Your task to perform on an android device: Search for usb-c to usb-a on ebay, select the first entry, add it to the cart, then select checkout. Image 0: 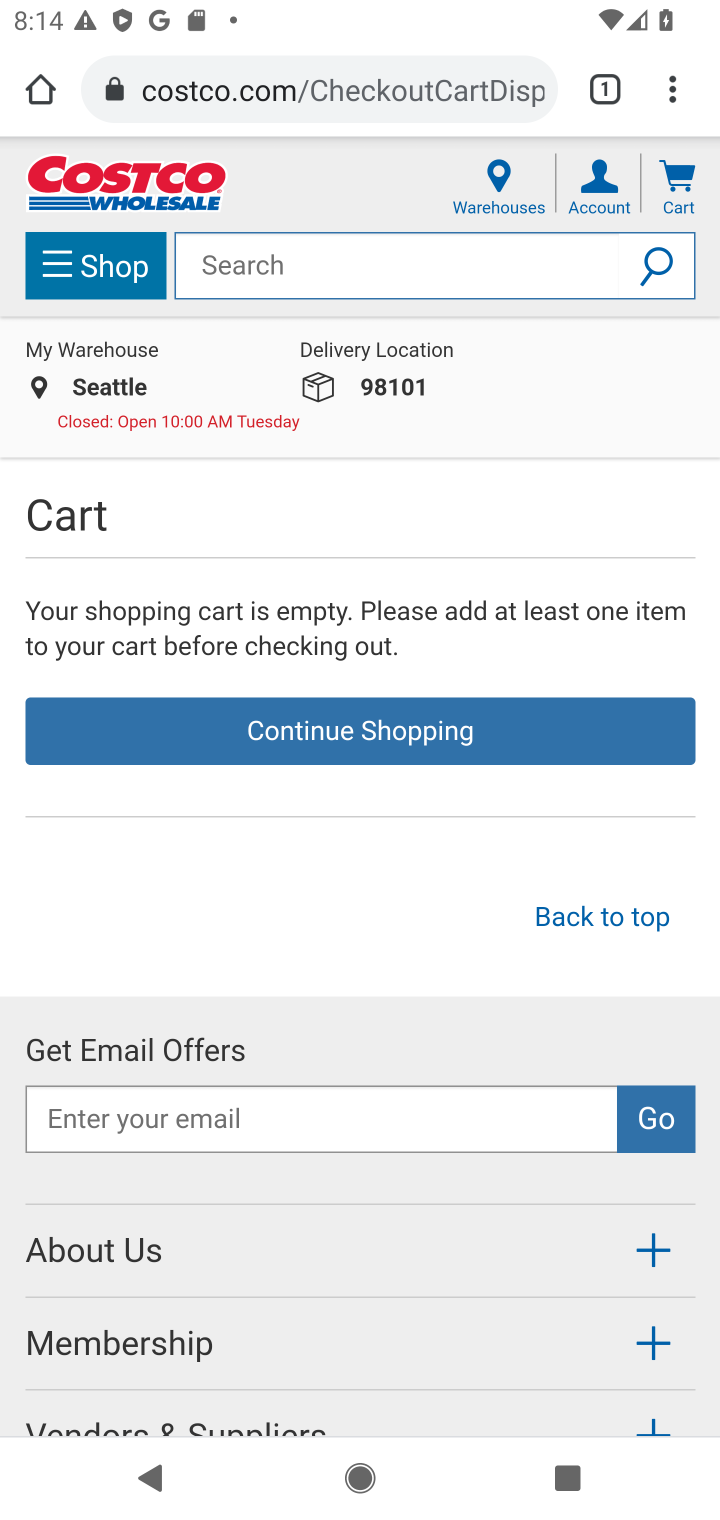
Step 0: press home button
Your task to perform on an android device: Search for usb-c to usb-a on ebay, select the first entry, add it to the cart, then select checkout. Image 1: 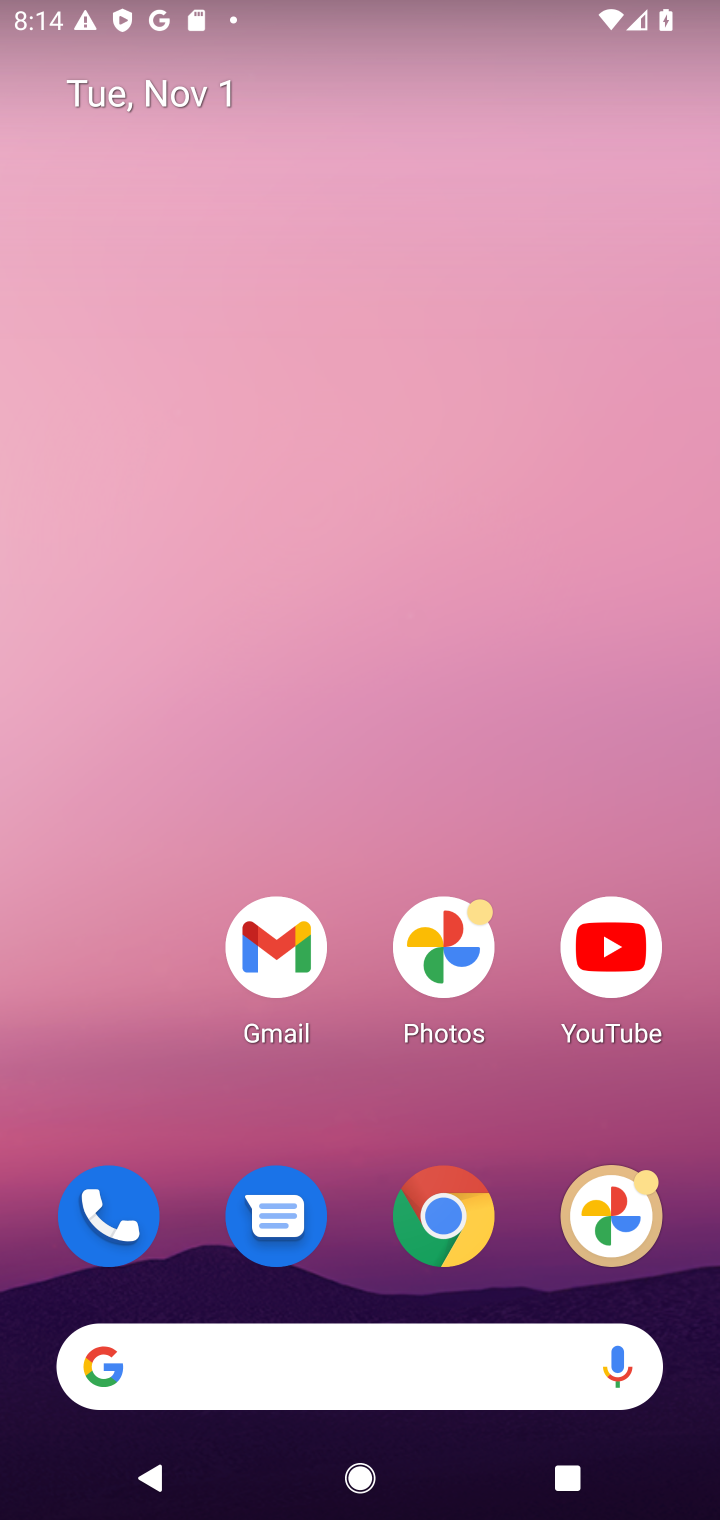
Step 1: click (424, 1212)
Your task to perform on an android device: Search for usb-c to usb-a on ebay, select the first entry, add it to the cart, then select checkout. Image 2: 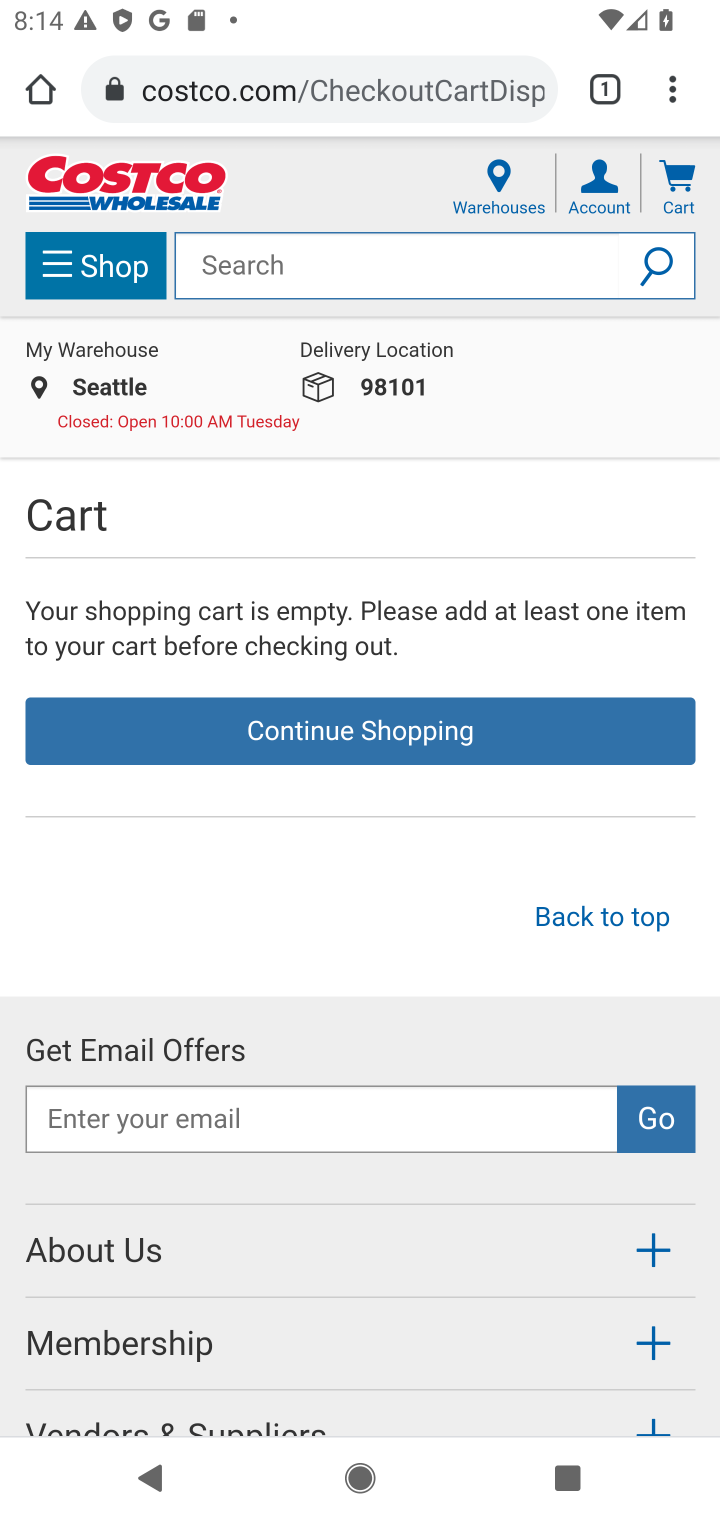
Step 2: click (228, 98)
Your task to perform on an android device: Search for usb-c to usb-a on ebay, select the first entry, add it to the cart, then select checkout. Image 3: 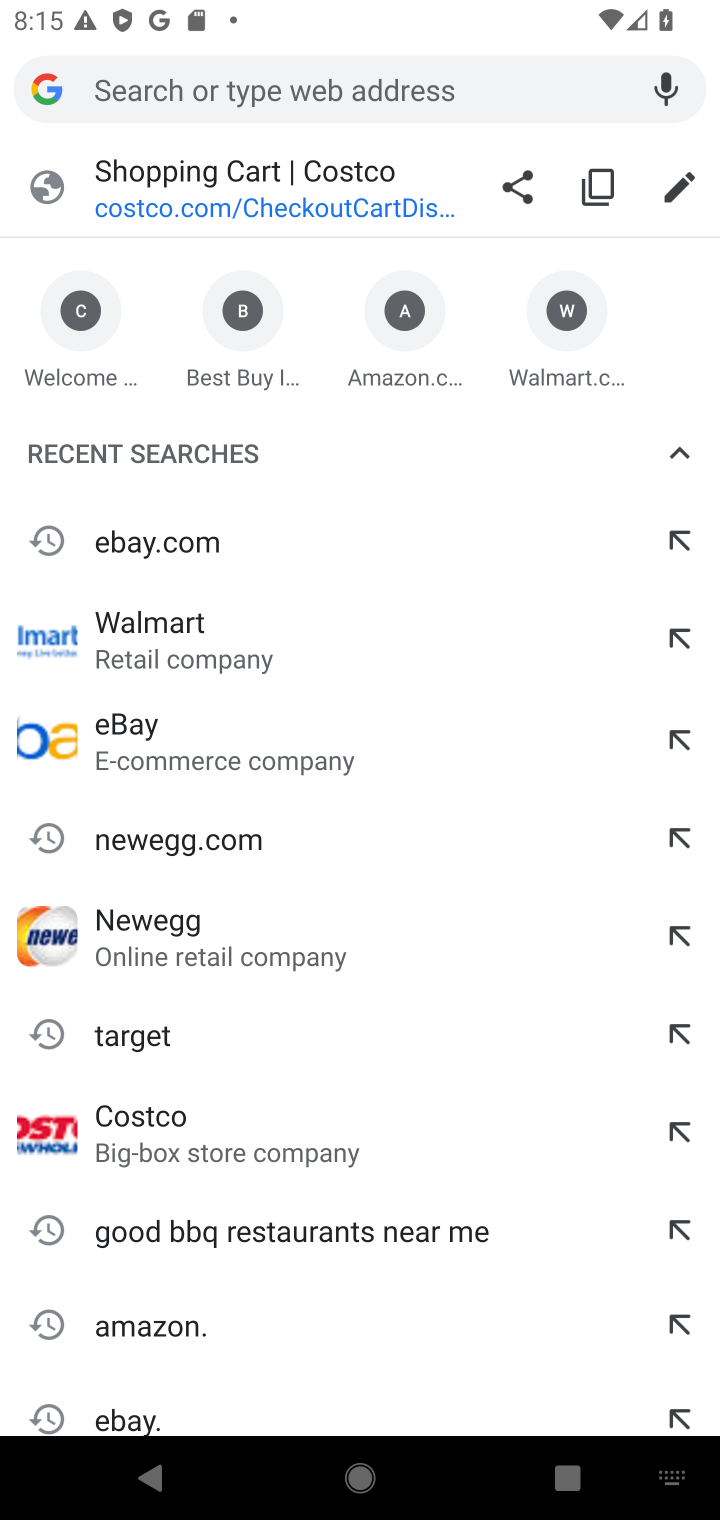
Step 3: type "ebay"
Your task to perform on an android device: Search for usb-c to usb-a on ebay, select the first entry, add it to the cart, then select checkout. Image 4: 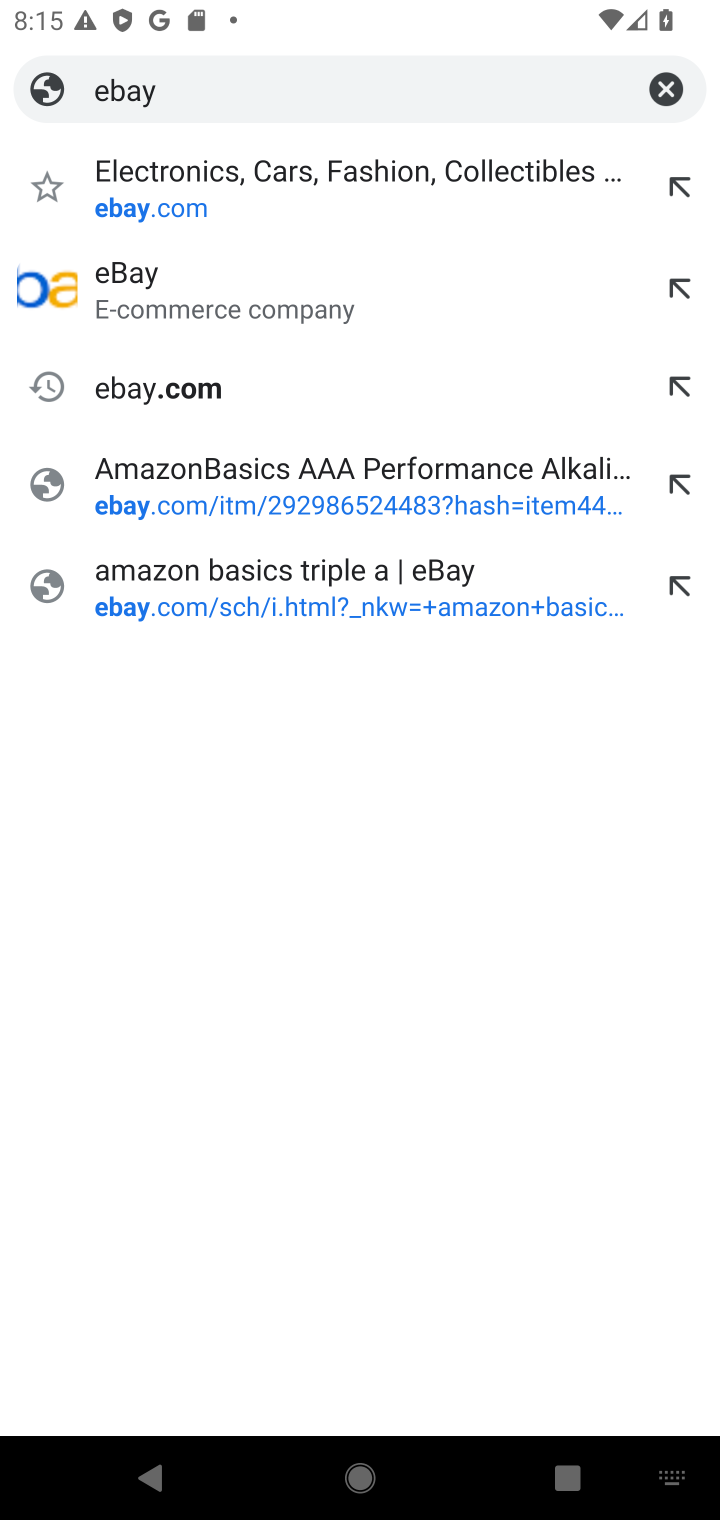
Step 4: click (226, 288)
Your task to perform on an android device: Search for usb-c to usb-a on ebay, select the first entry, add it to the cart, then select checkout. Image 5: 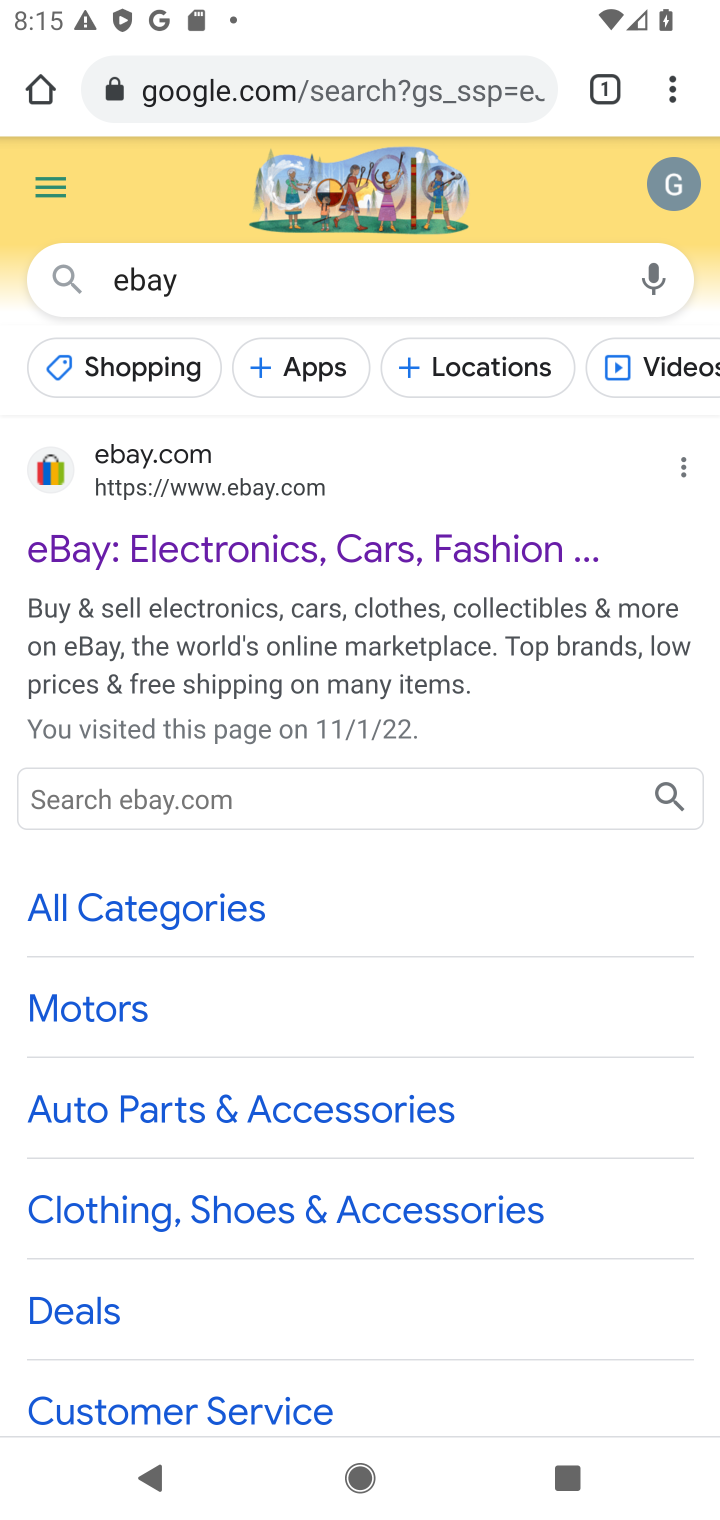
Step 5: click (176, 560)
Your task to perform on an android device: Search for usb-c to usb-a on ebay, select the first entry, add it to the cart, then select checkout. Image 6: 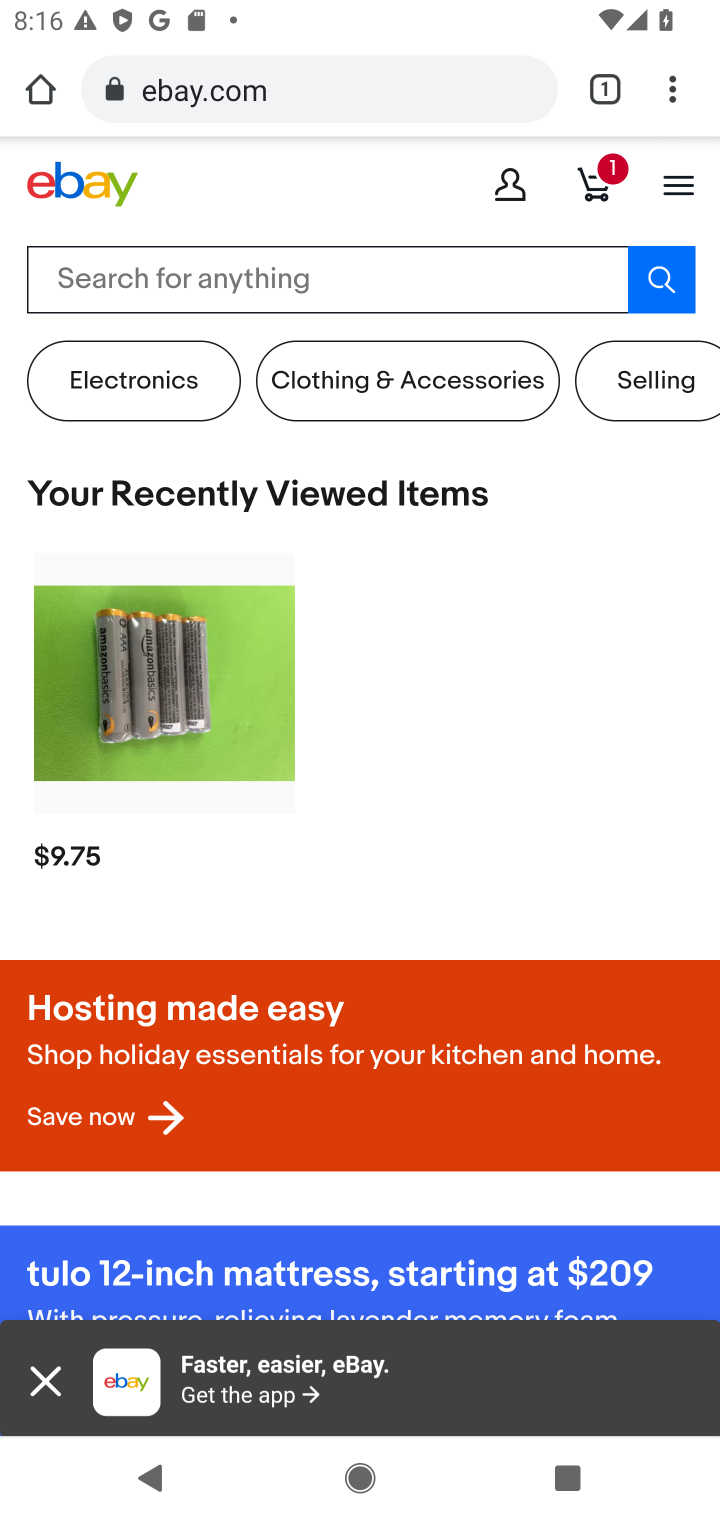
Step 6: click (319, 293)
Your task to perform on an android device: Search for usb-c to usb-a on ebay, select the first entry, add it to the cart, then select checkout. Image 7: 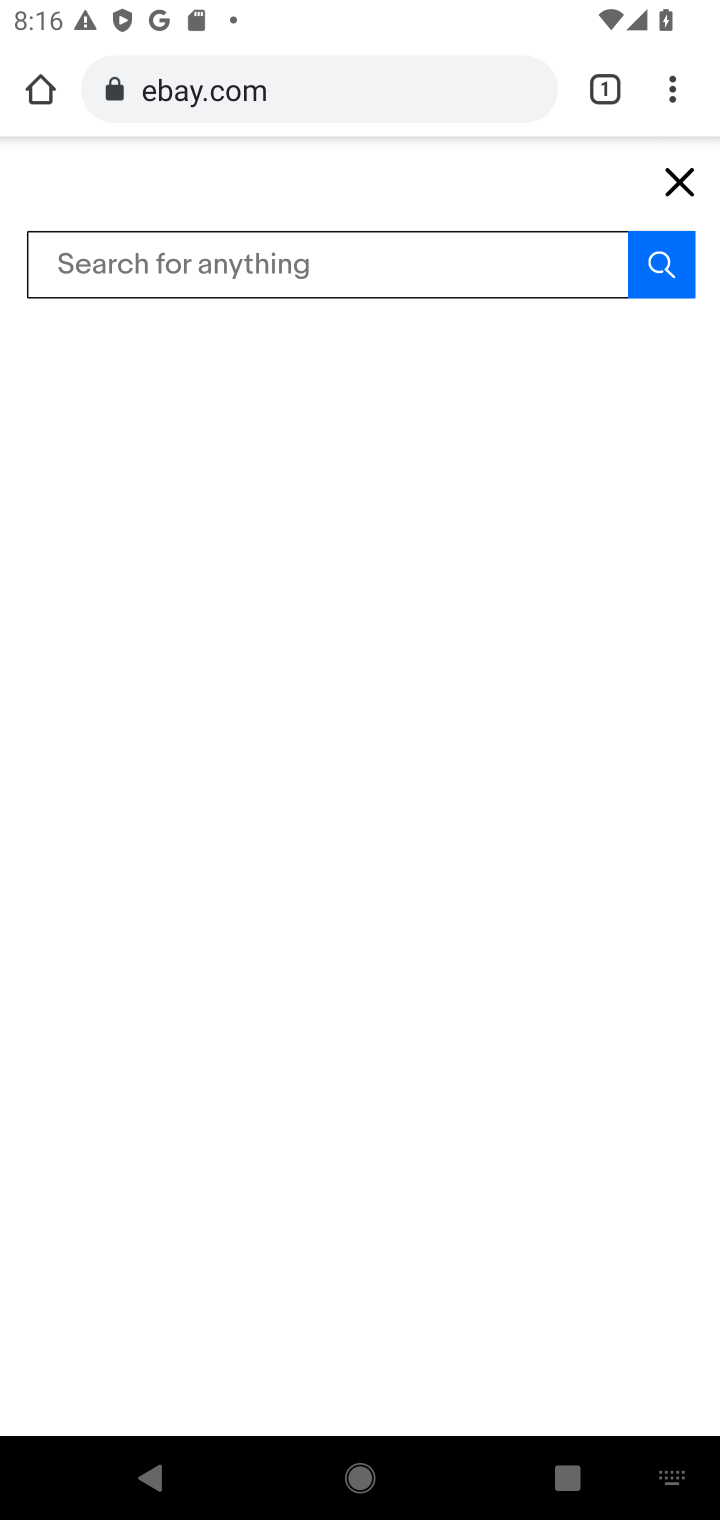
Step 7: type "usb-c to usb-a"
Your task to perform on an android device: Search for usb-c to usb-a on ebay, select the first entry, add it to the cart, then select checkout. Image 8: 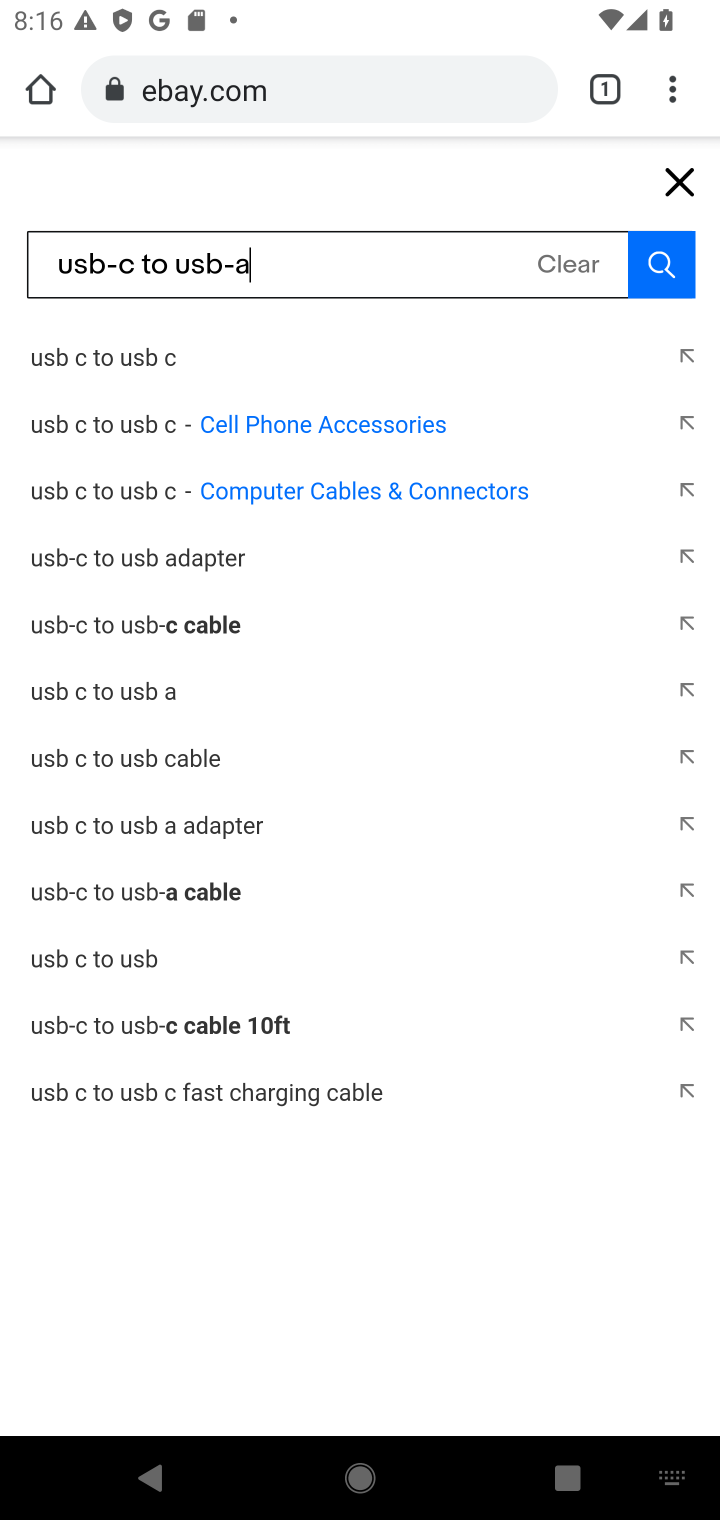
Step 8: click (162, 695)
Your task to perform on an android device: Search for usb-c to usb-a on ebay, select the first entry, add it to the cart, then select checkout. Image 9: 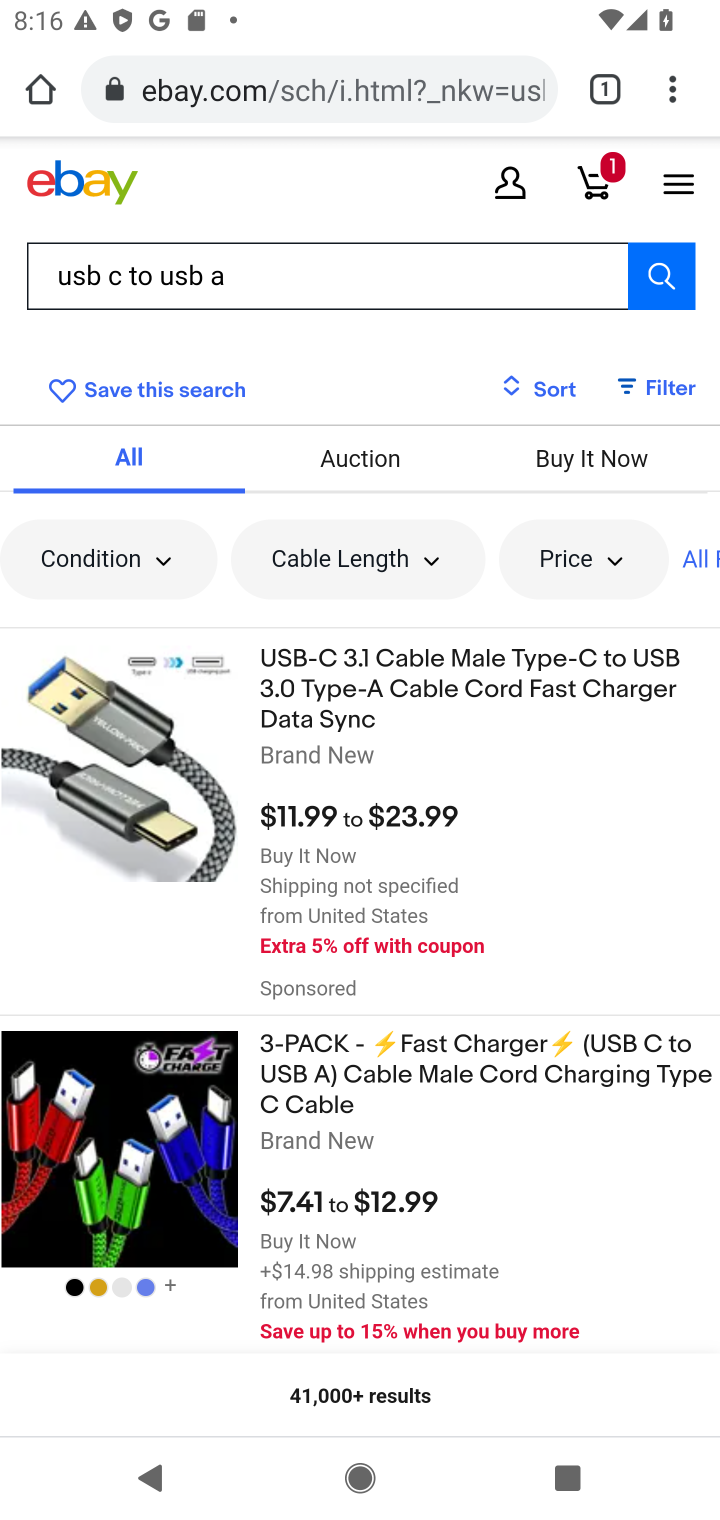
Step 9: click (462, 691)
Your task to perform on an android device: Search for usb-c to usb-a on ebay, select the first entry, add it to the cart, then select checkout. Image 10: 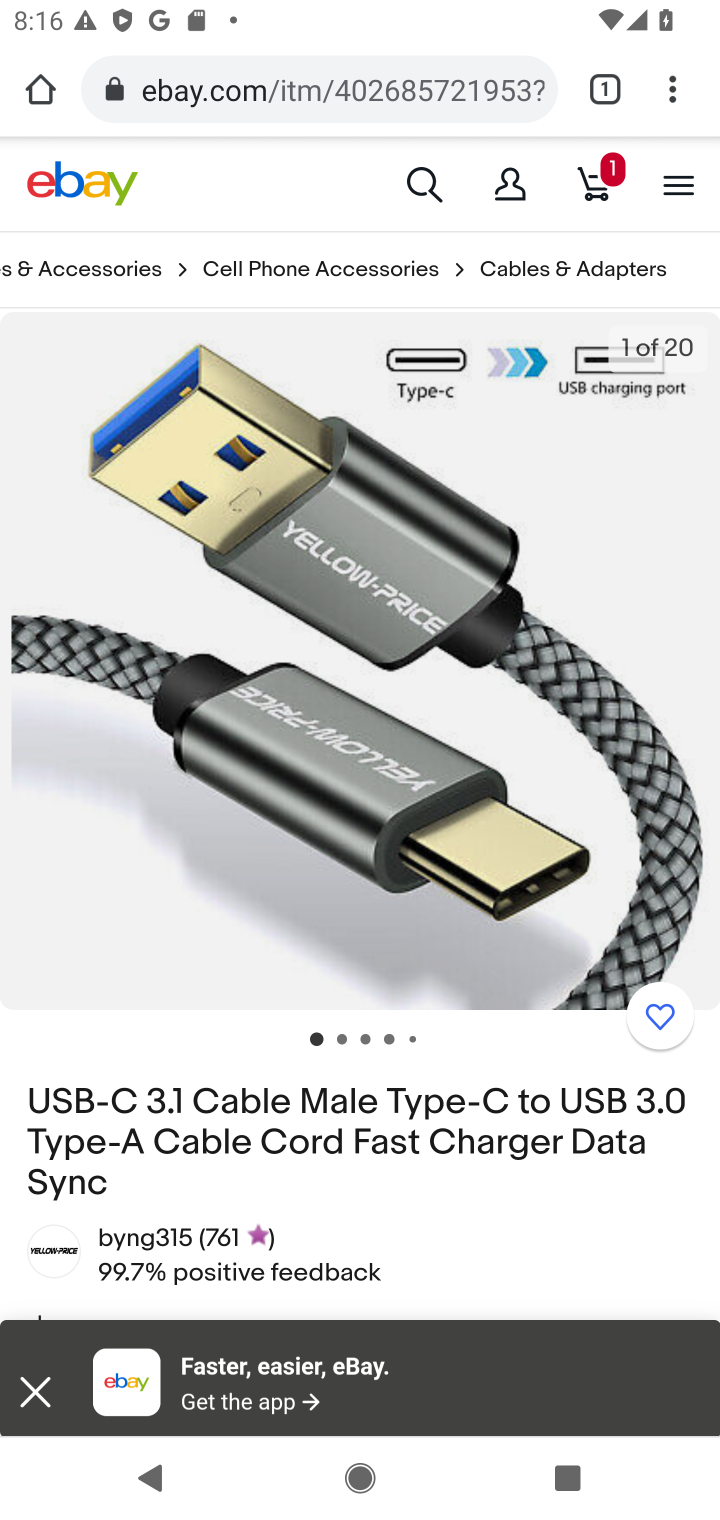
Step 10: drag from (355, 1189) to (353, 873)
Your task to perform on an android device: Search for usb-c to usb-a on ebay, select the first entry, add it to the cart, then select checkout. Image 11: 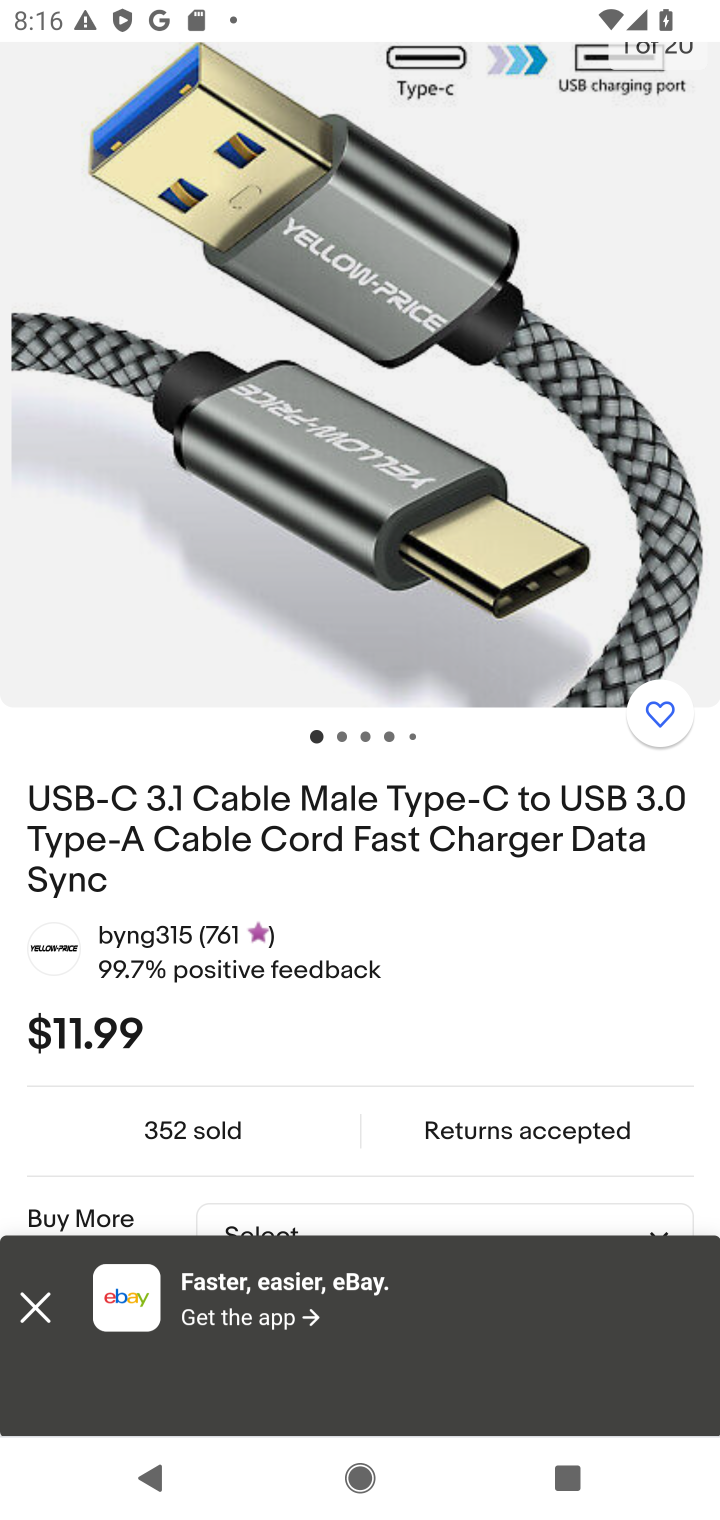
Step 11: drag from (321, 1170) to (302, 851)
Your task to perform on an android device: Search for usb-c to usb-a on ebay, select the first entry, add it to the cart, then select checkout. Image 12: 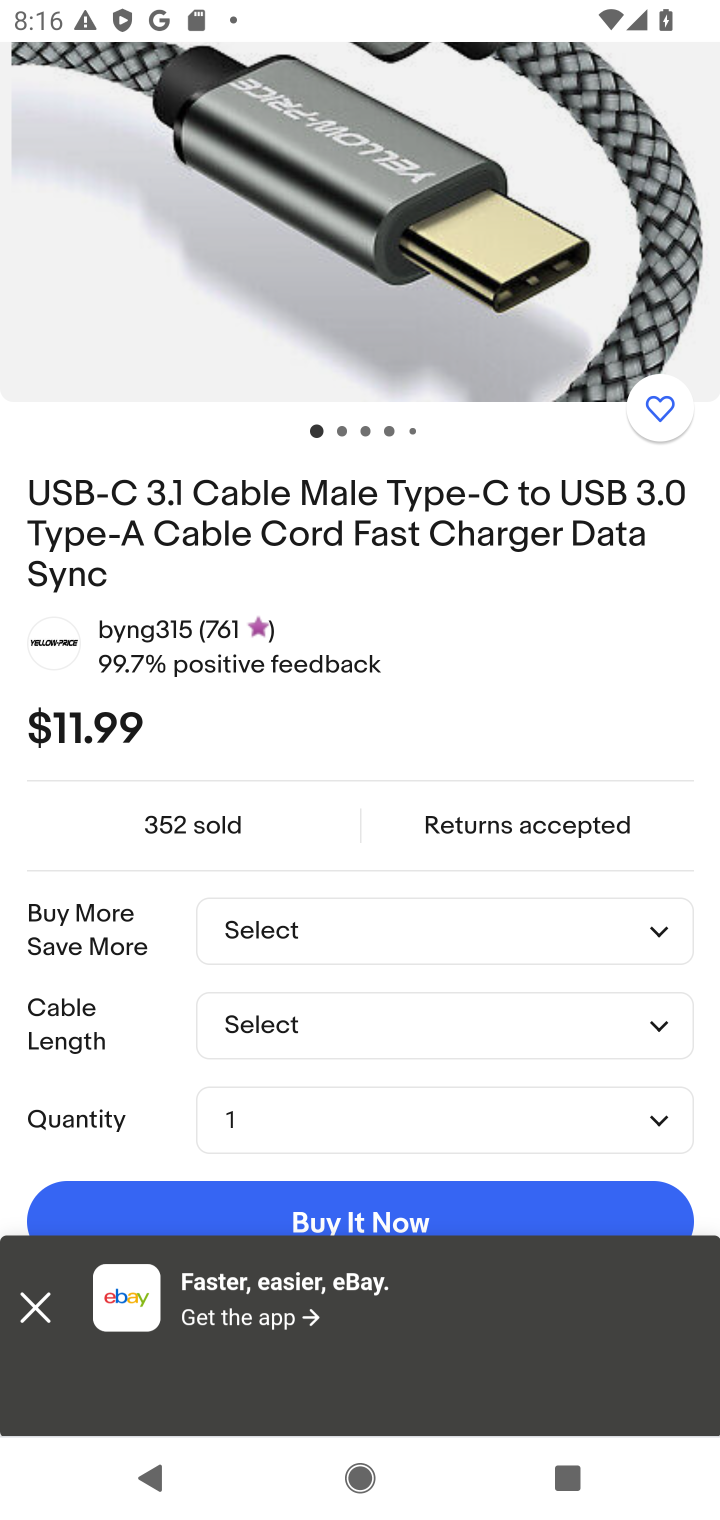
Step 12: drag from (375, 1177) to (388, 833)
Your task to perform on an android device: Search for usb-c to usb-a on ebay, select the first entry, add it to the cart, then select checkout. Image 13: 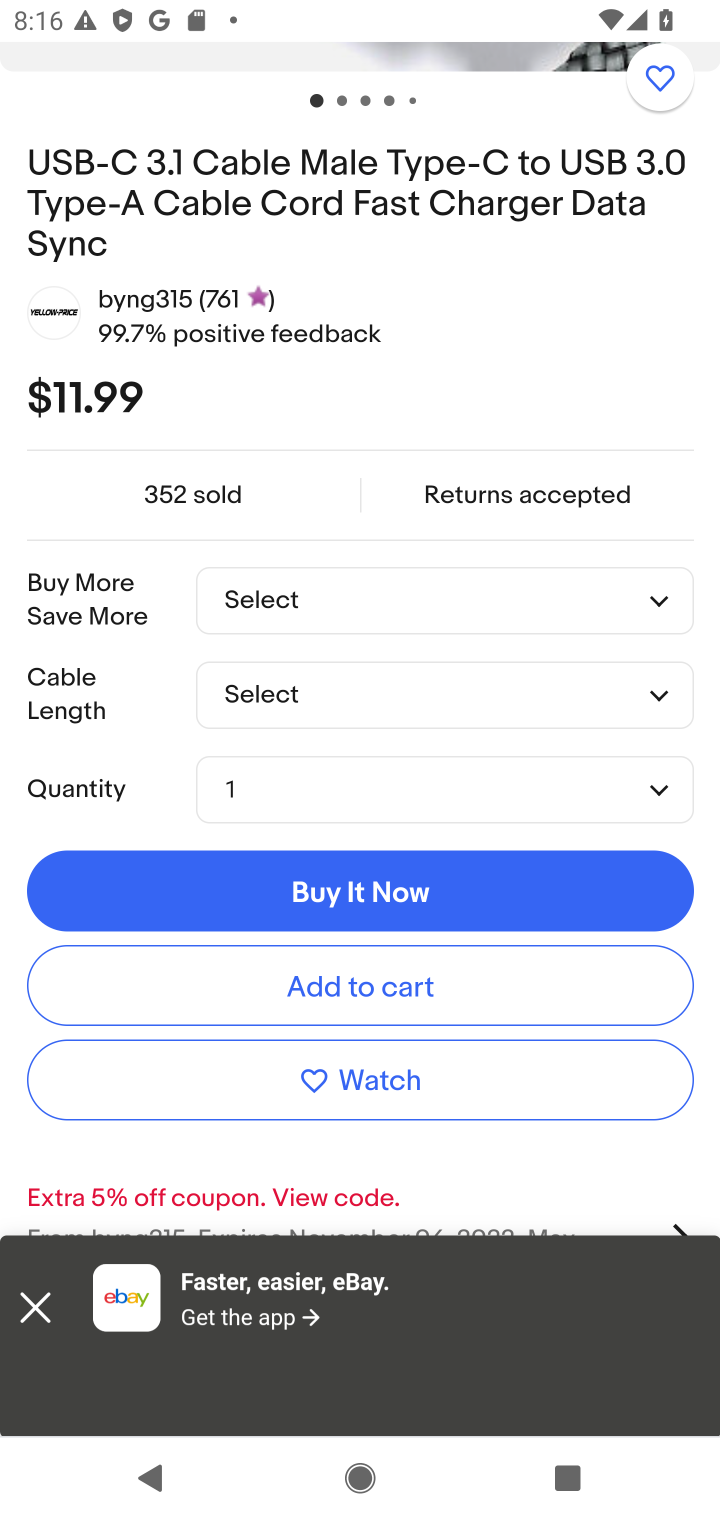
Step 13: click (374, 989)
Your task to perform on an android device: Search for usb-c to usb-a on ebay, select the first entry, add it to the cart, then select checkout. Image 14: 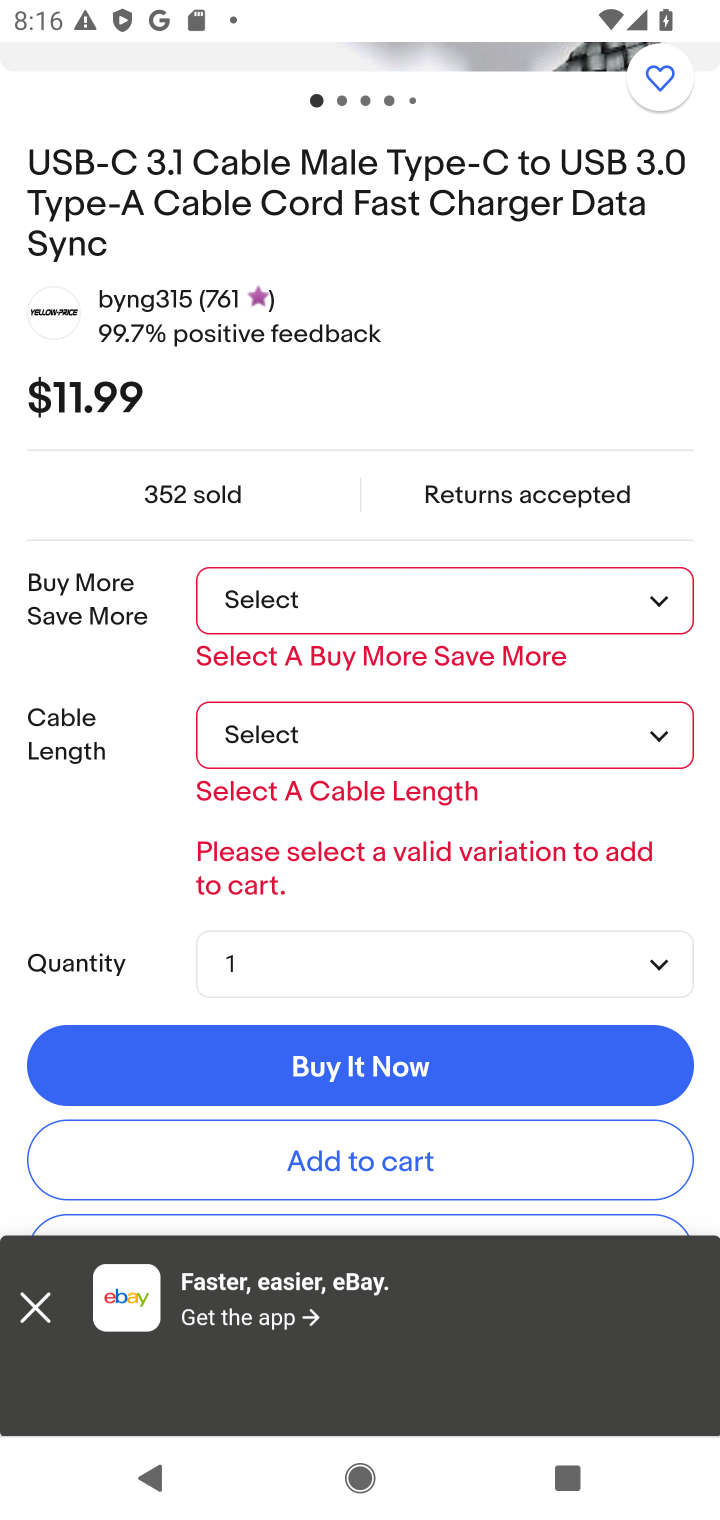
Step 14: click (655, 601)
Your task to perform on an android device: Search for usb-c to usb-a on ebay, select the first entry, add it to the cart, then select checkout. Image 15: 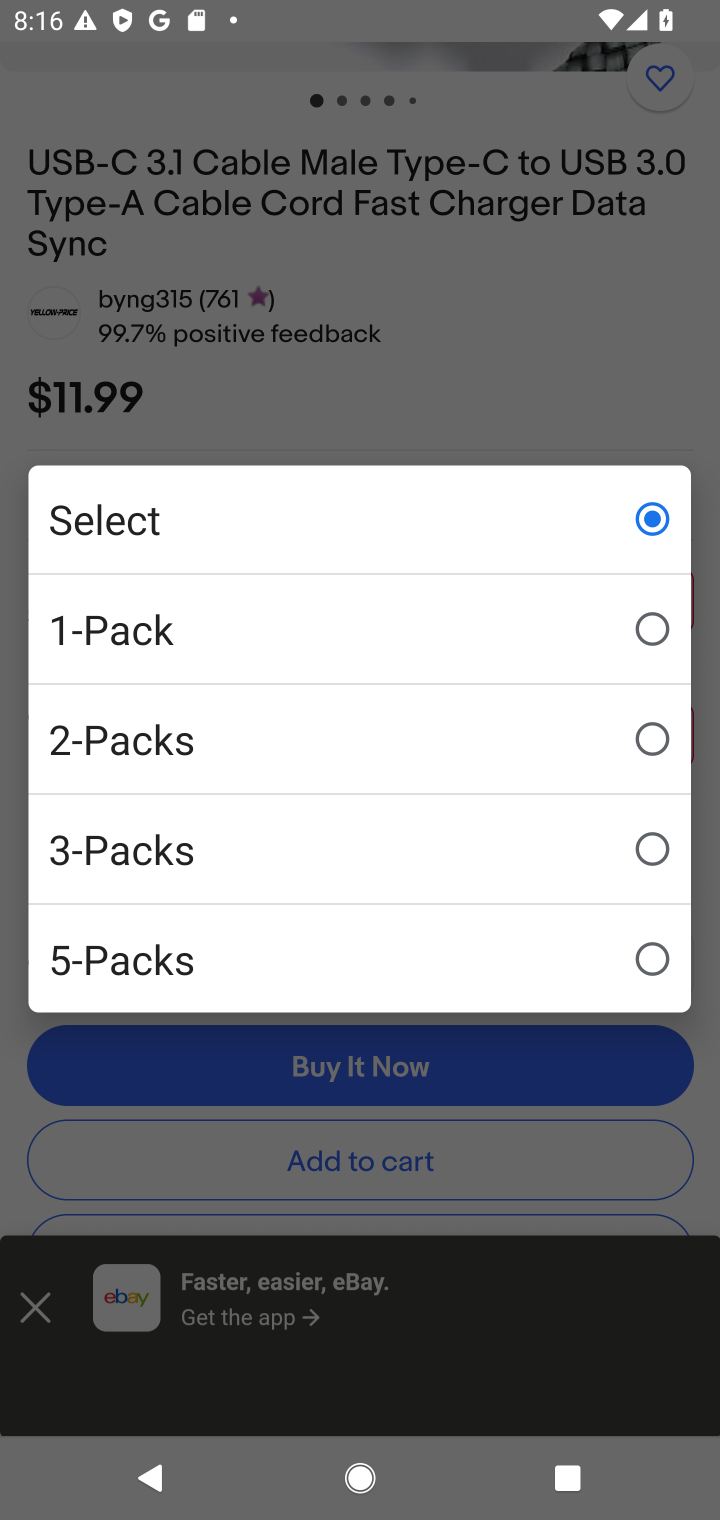
Step 15: click (351, 620)
Your task to perform on an android device: Search for usb-c to usb-a on ebay, select the first entry, add it to the cart, then select checkout. Image 16: 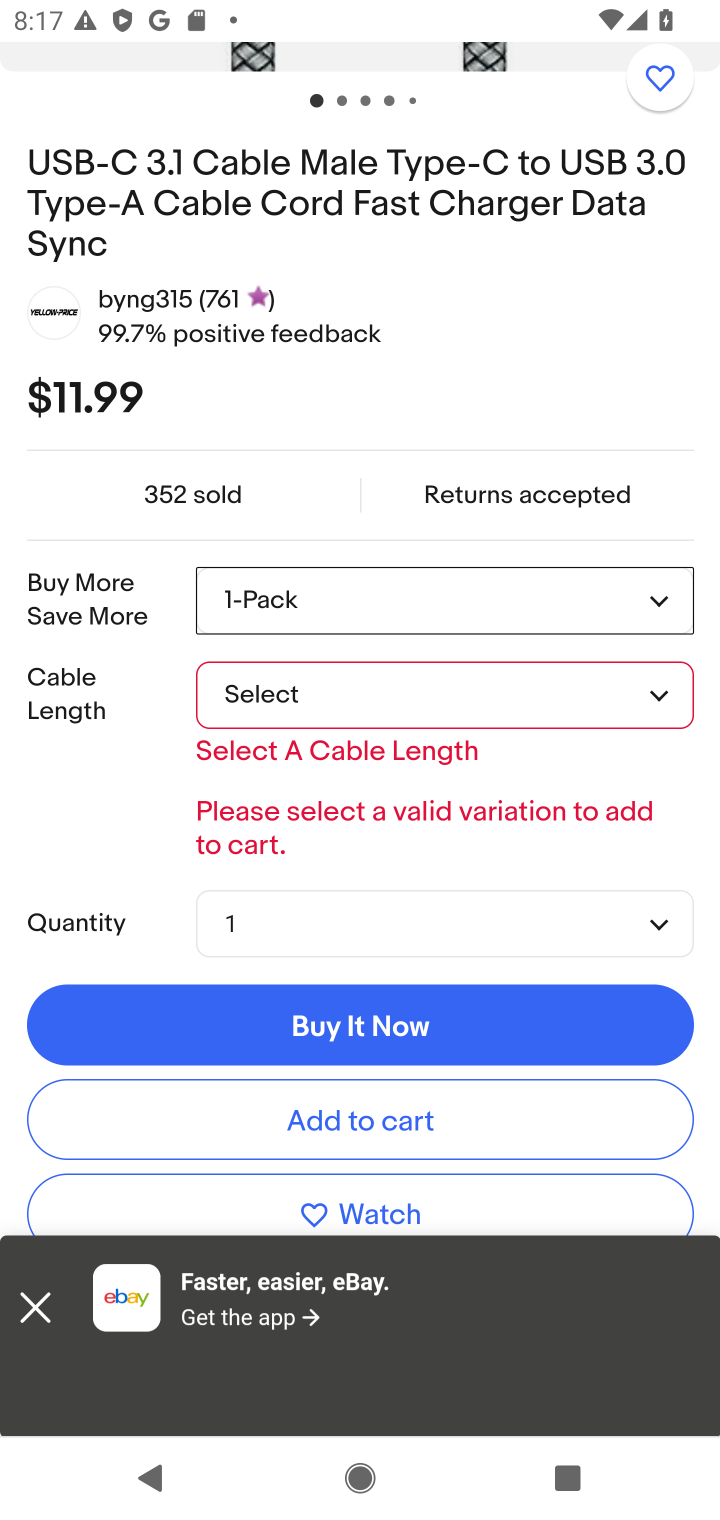
Step 16: click (598, 695)
Your task to perform on an android device: Search for usb-c to usb-a on ebay, select the first entry, add it to the cart, then select checkout. Image 17: 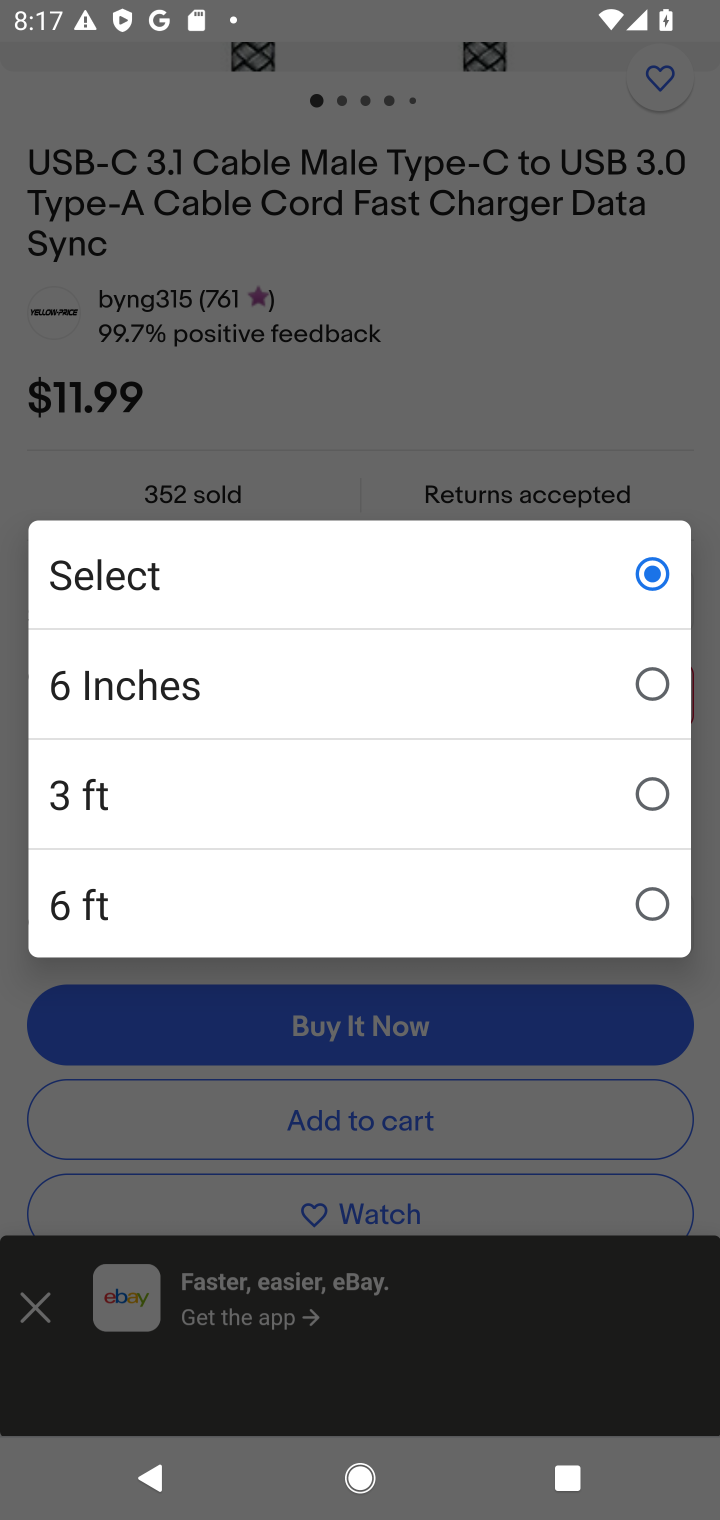
Step 17: click (312, 785)
Your task to perform on an android device: Search for usb-c to usb-a on ebay, select the first entry, add it to the cart, then select checkout. Image 18: 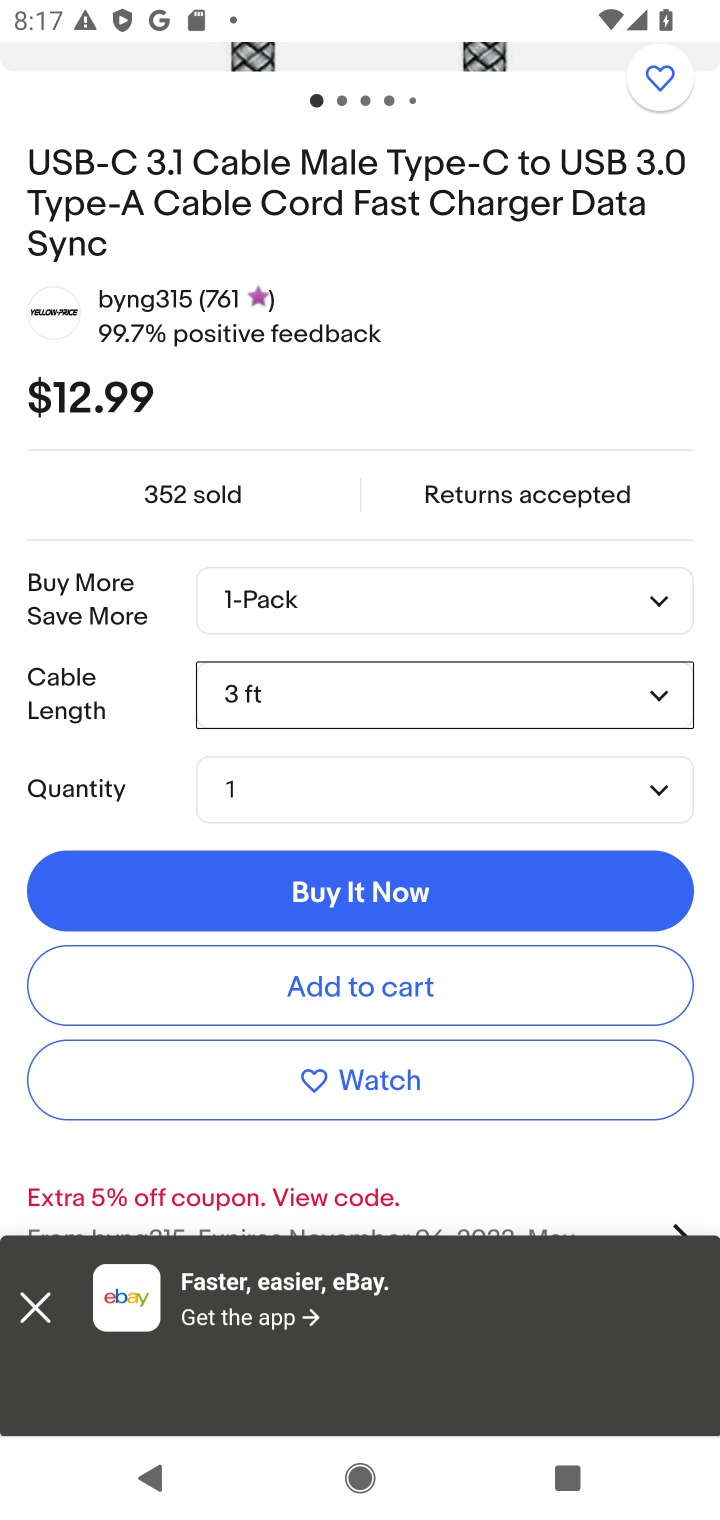
Step 18: click (362, 990)
Your task to perform on an android device: Search for usb-c to usb-a on ebay, select the first entry, add it to the cart, then select checkout. Image 19: 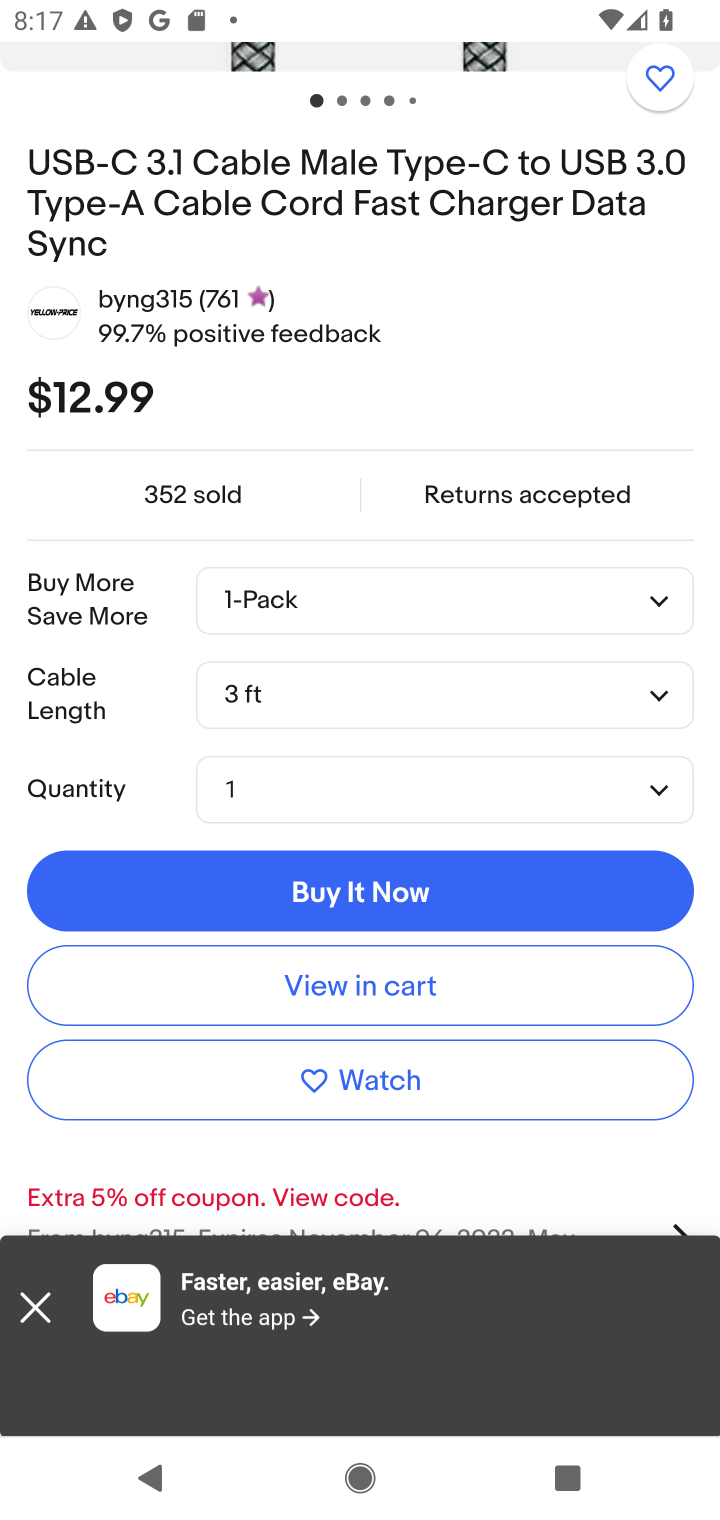
Step 19: click (362, 990)
Your task to perform on an android device: Search for usb-c to usb-a on ebay, select the first entry, add it to the cart, then select checkout. Image 20: 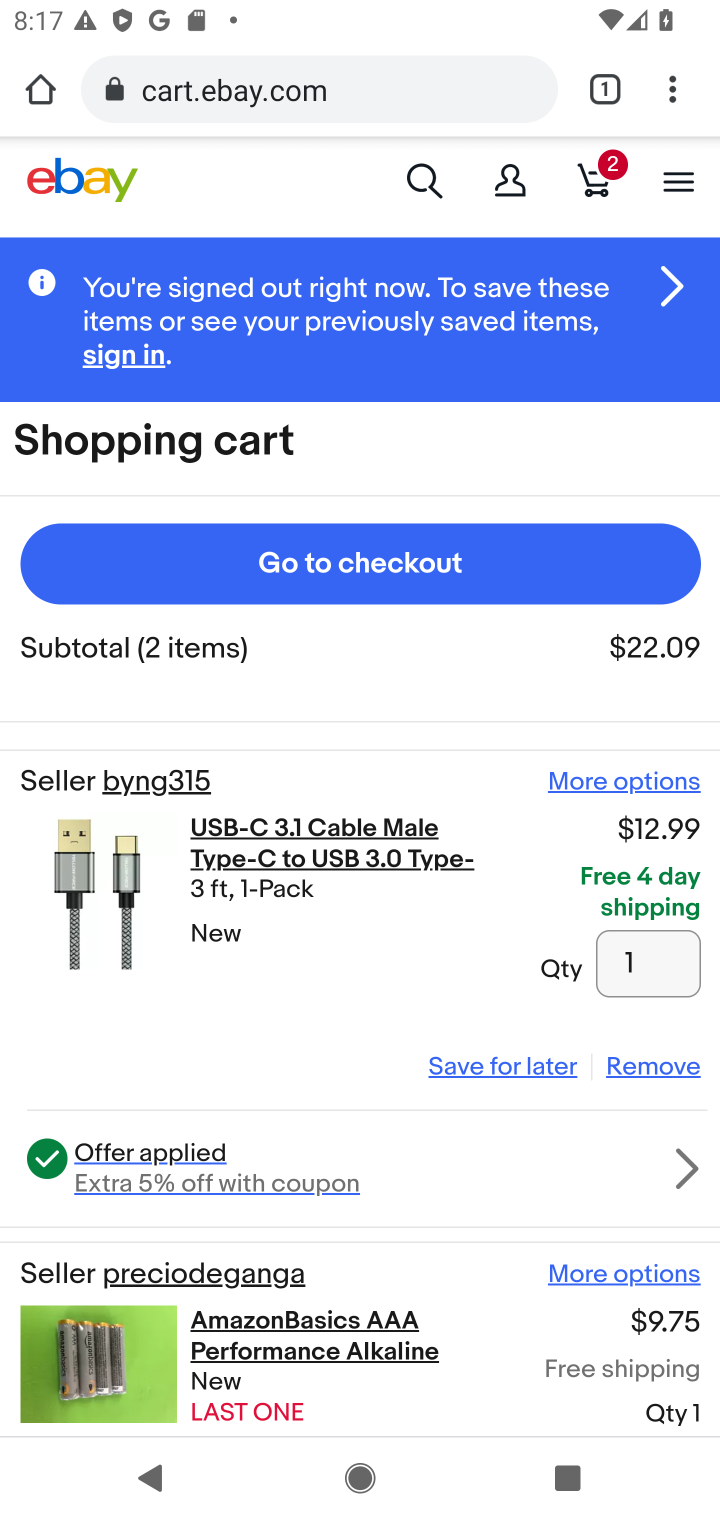
Step 20: click (424, 553)
Your task to perform on an android device: Search for usb-c to usb-a on ebay, select the first entry, add it to the cart, then select checkout. Image 21: 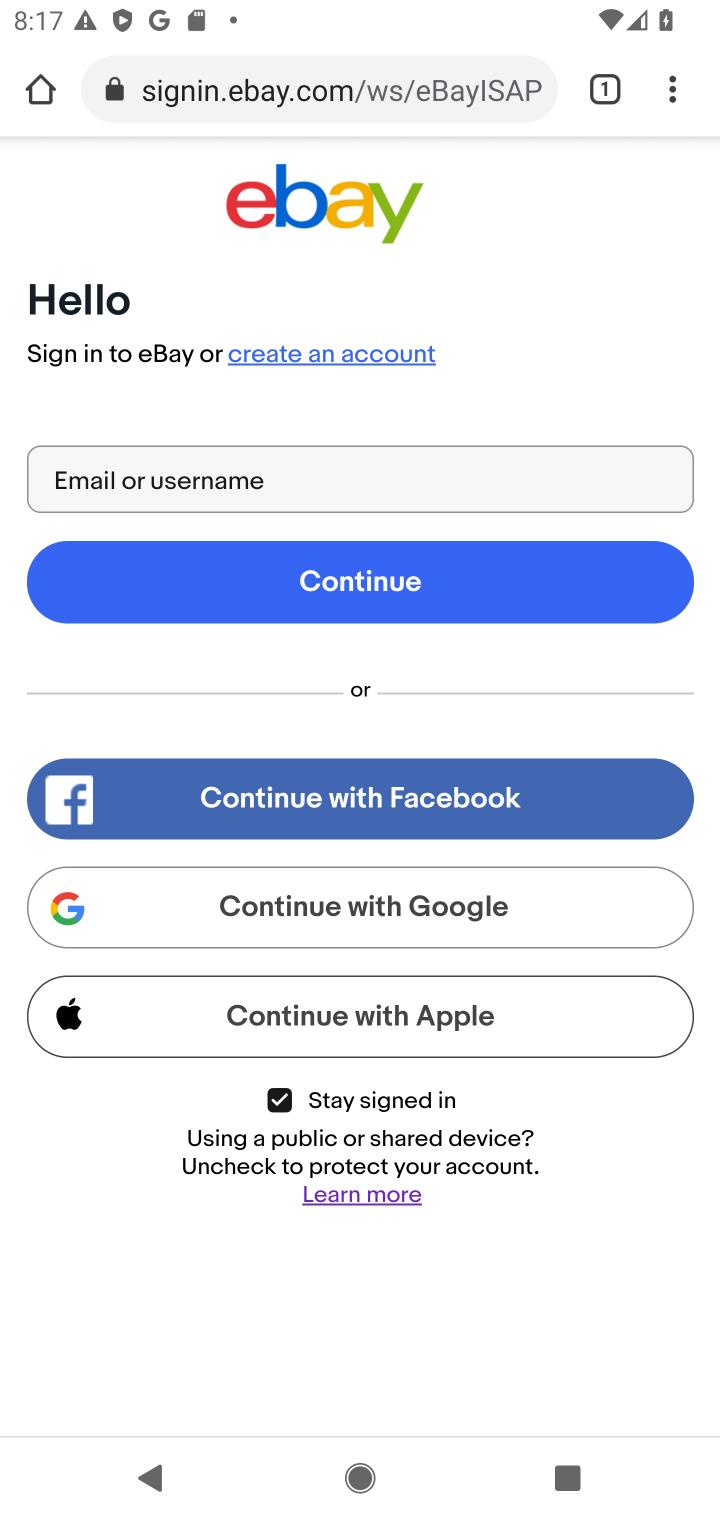
Step 21: task complete